Your task to perform on an android device: empty trash in google photos Image 0: 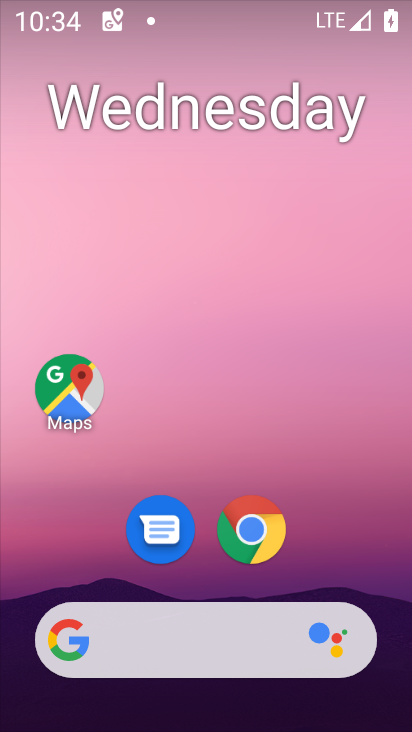
Step 0: drag from (394, 631) to (362, 112)
Your task to perform on an android device: empty trash in google photos Image 1: 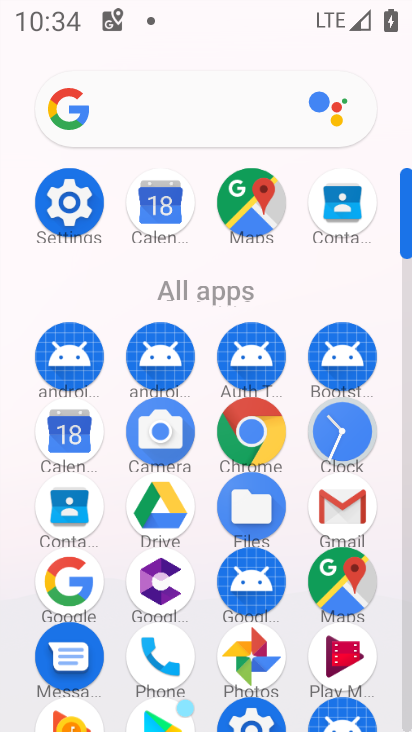
Step 1: click (408, 693)
Your task to perform on an android device: empty trash in google photos Image 2: 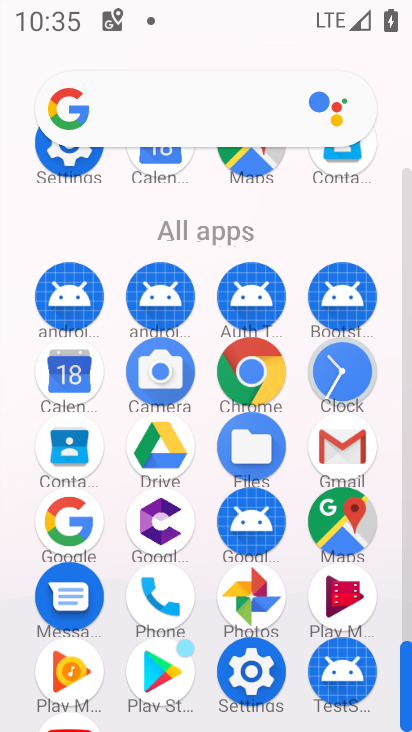
Step 2: click (249, 593)
Your task to perform on an android device: empty trash in google photos Image 3: 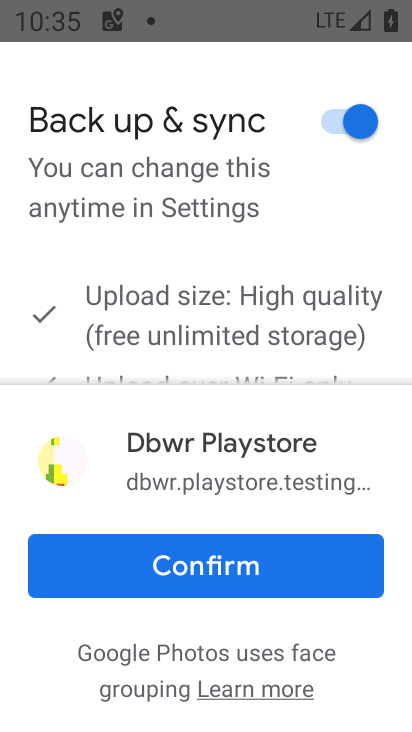
Step 3: click (205, 565)
Your task to perform on an android device: empty trash in google photos Image 4: 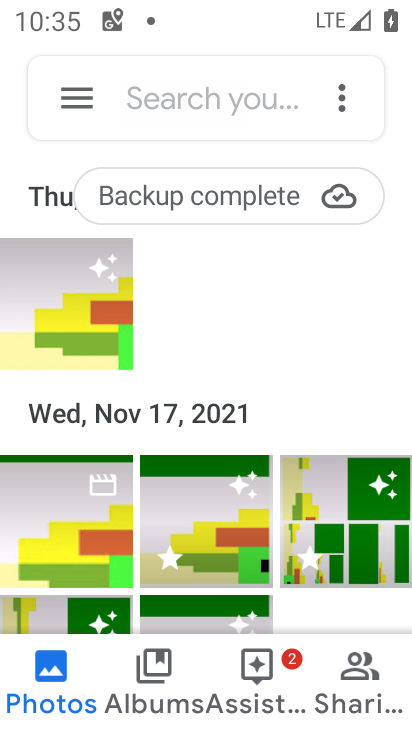
Step 4: click (73, 100)
Your task to perform on an android device: empty trash in google photos Image 5: 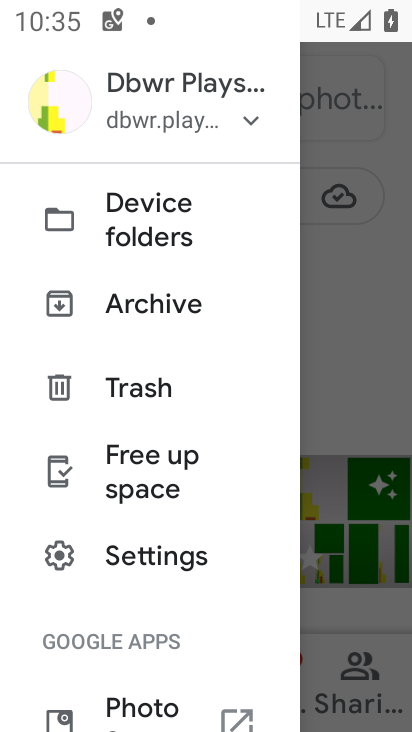
Step 5: click (137, 394)
Your task to perform on an android device: empty trash in google photos Image 6: 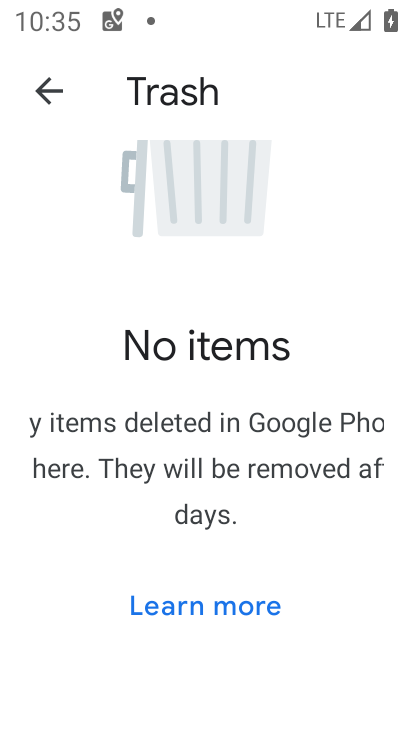
Step 6: task complete